Your task to perform on an android device: Toggle the flashlight Image 0: 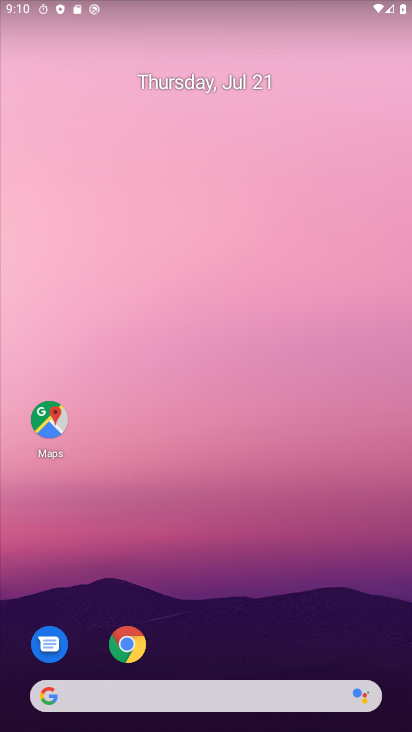
Step 0: drag from (273, 595) to (180, 96)
Your task to perform on an android device: Toggle the flashlight Image 1: 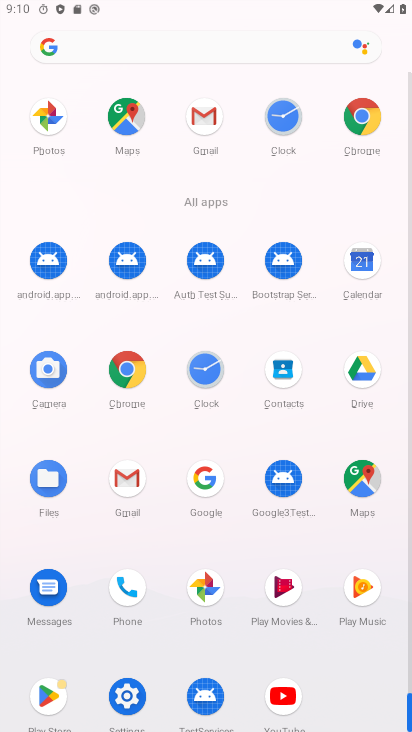
Step 1: task complete